Your task to perform on an android device: turn off notifications in google photos Image 0: 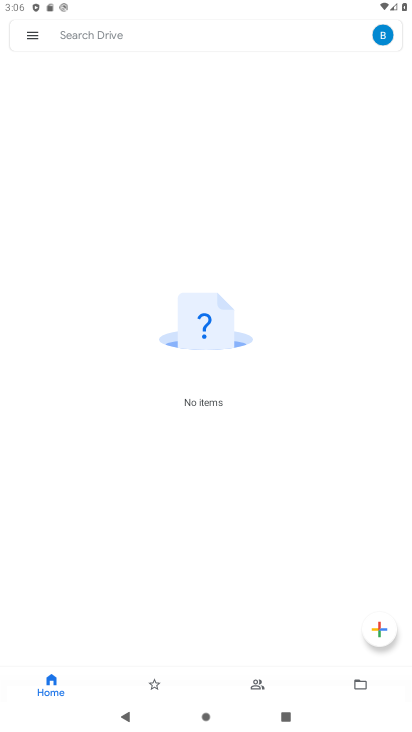
Step 0: press home button
Your task to perform on an android device: turn off notifications in google photos Image 1: 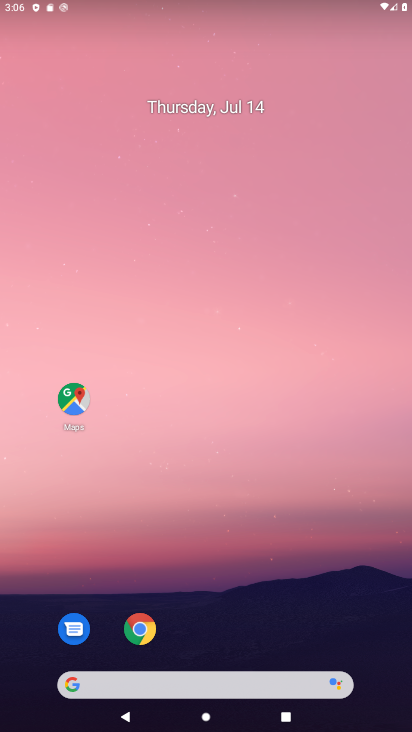
Step 1: drag from (306, 407) to (321, 76)
Your task to perform on an android device: turn off notifications in google photos Image 2: 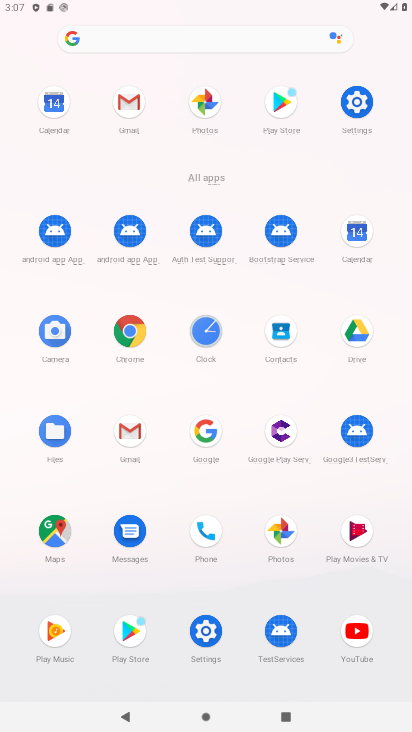
Step 2: click (288, 524)
Your task to perform on an android device: turn off notifications in google photos Image 3: 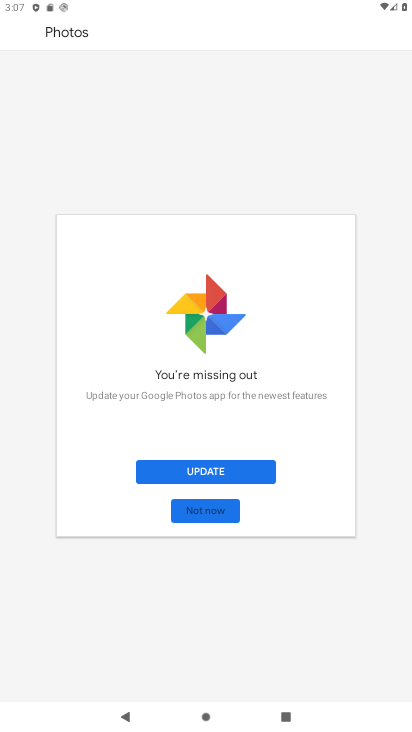
Step 3: click (208, 468)
Your task to perform on an android device: turn off notifications in google photos Image 4: 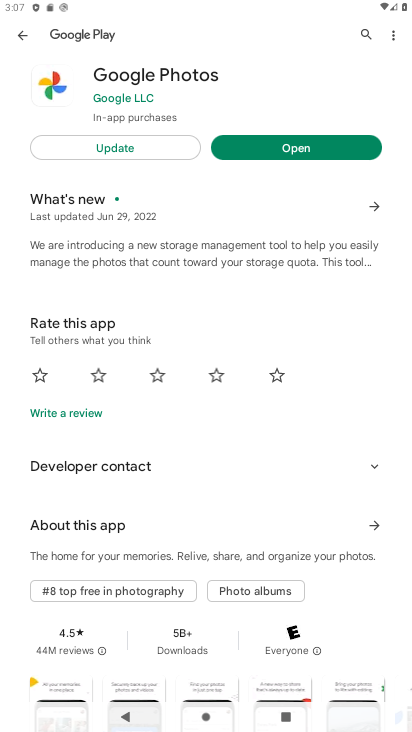
Step 4: click (82, 147)
Your task to perform on an android device: turn off notifications in google photos Image 5: 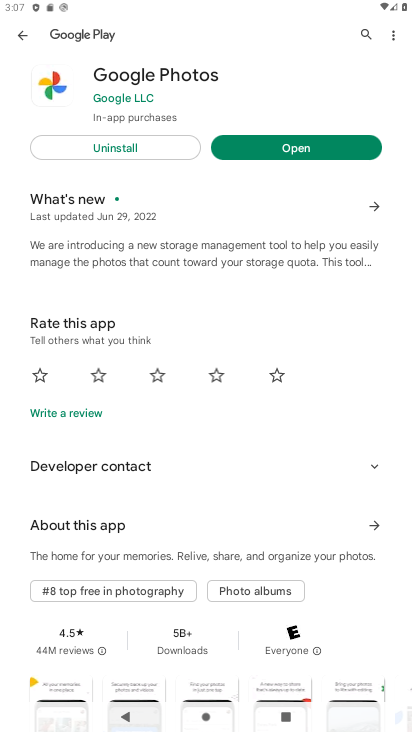
Step 5: click (281, 149)
Your task to perform on an android device: turn off notifications in google photos Image 6: 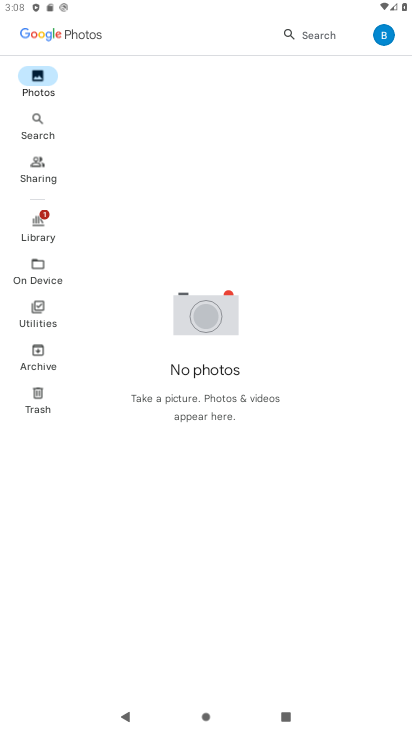
Step 6: click (387, 31)
Your task to perform on an android device: turn off notifications in google photos Image 7: 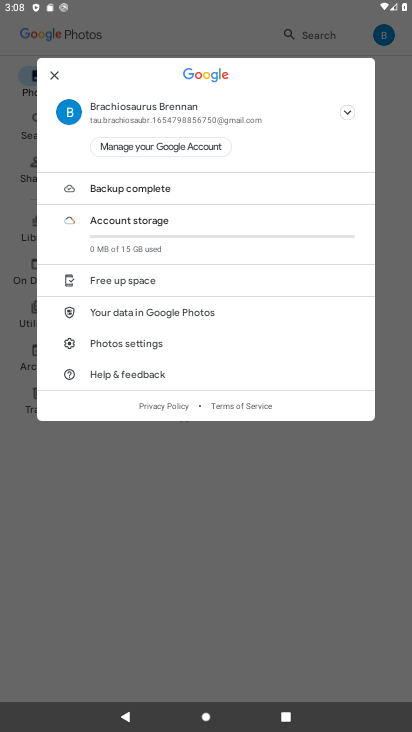
Step 7: click (139, 348)
Your task to perform on an android device: turn off notifications in google photos Image 8: 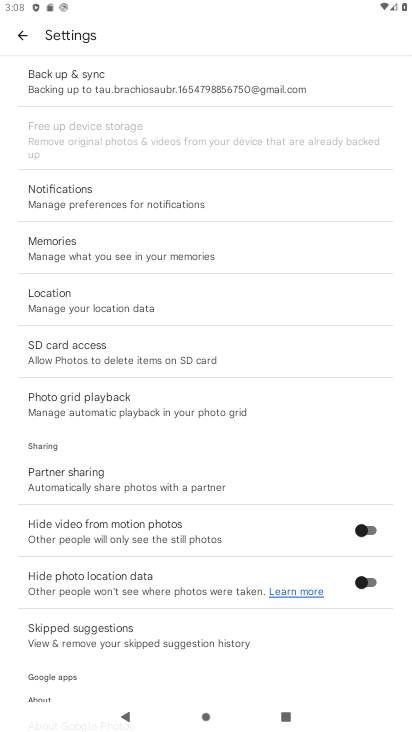
Step 8: click (81, 198)
Your task to perform on an android device: turn off notifications in google photos Image 9: 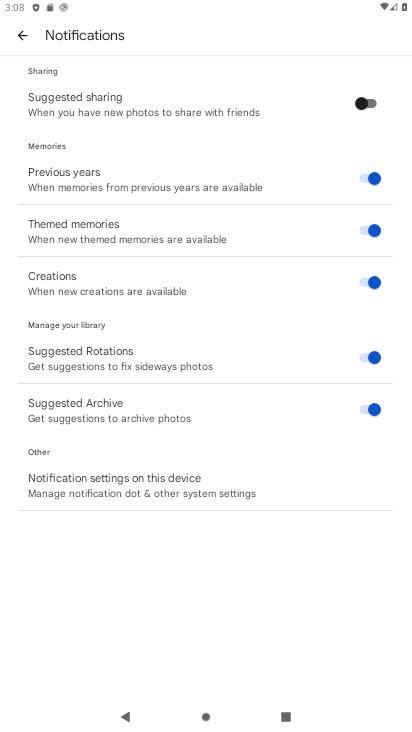
Step 9: click (202, 486)
Your task to perform on an android device: turn off notifications in google photos Image 10: 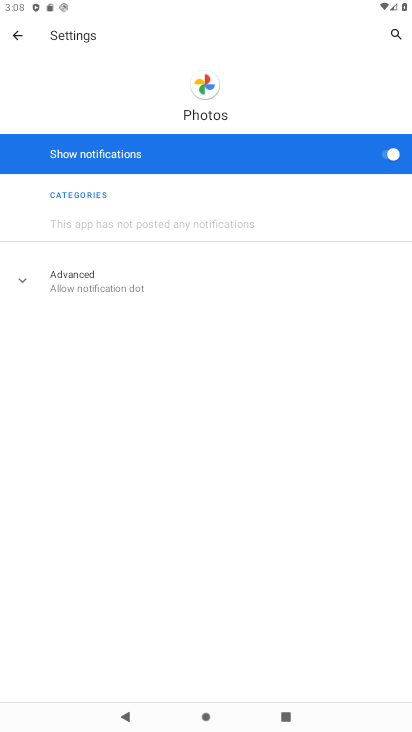
Step 10: click (387, 162)
Your task to perform on an android device: turn off notifications in google photos Image 11: 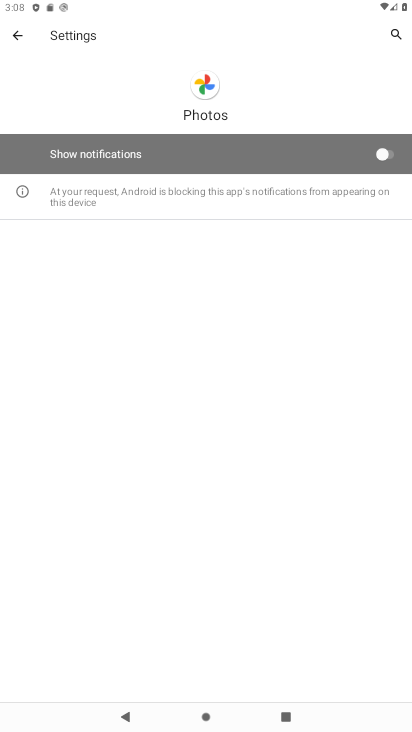
Step 11: task complete